Your task to perform on an android device: see sites visited before in the chrome app Image 0: 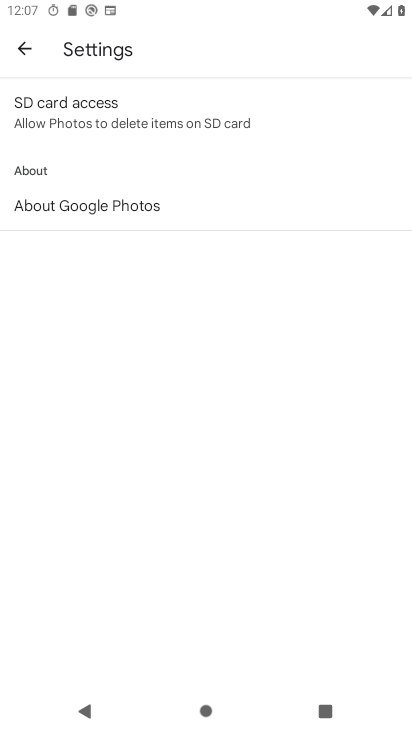
Step 0: press home button
Your task to perform on an android device: see sites visited before in the chrome app Image 1: 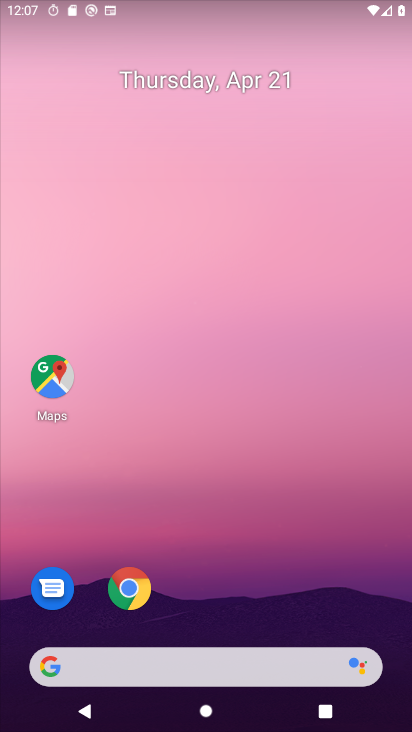
Step 1: click (125, 582)
Your task to perform on an android device: see sites visited before in the chrome app Image 2: 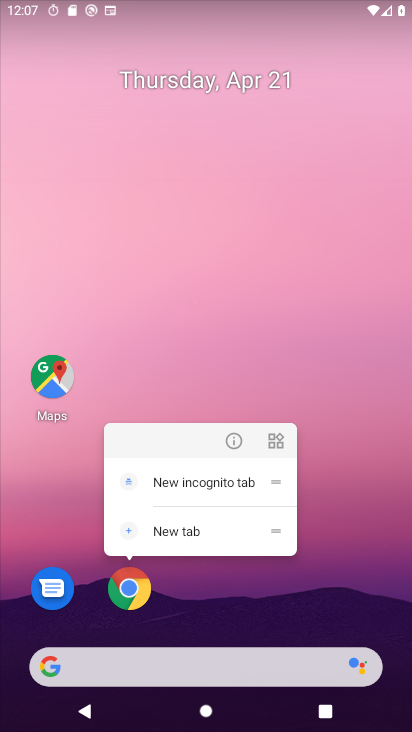
Step 2: click (234, 590)
Your task to perform on an android device: see sites visited before in the chrome app Image 3: 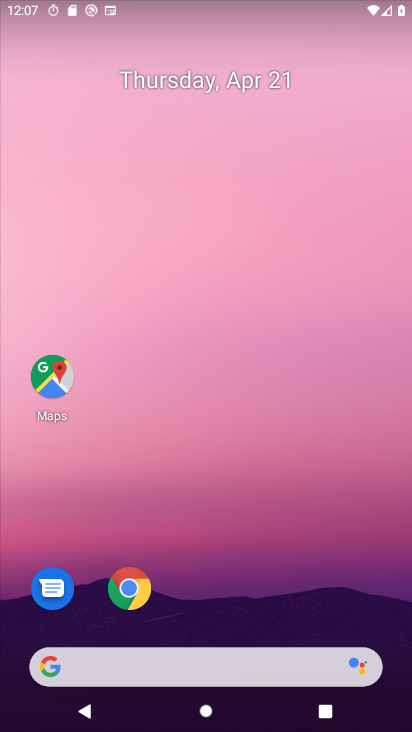
Step 3: click (123, 582)
Your task to perform on an android device: see sites visited before in the chrome app Image 4: 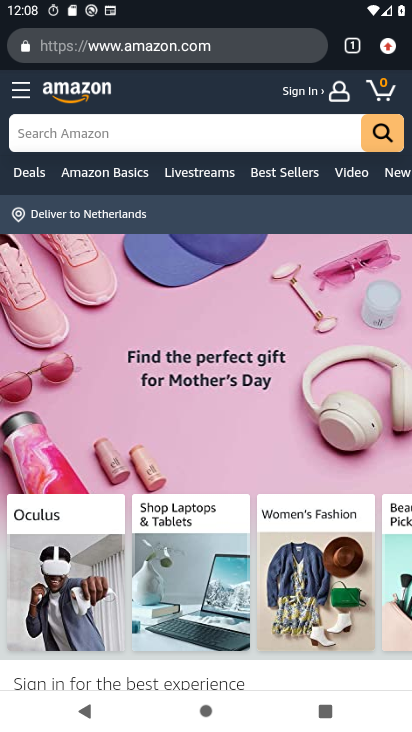
Step 4: click (390, 42)
Your task to perform on an android device: see sites visited before in the chrome app Image 5: 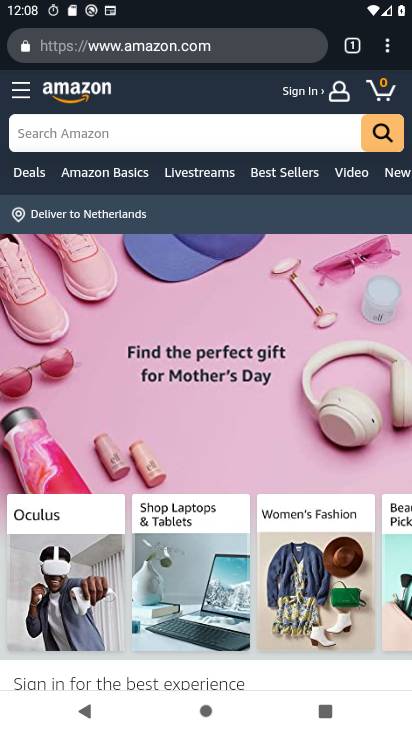
Step 5: click (384, 42)
Your task to perform on an android device: see sites visited before in the chrome app Image 6: 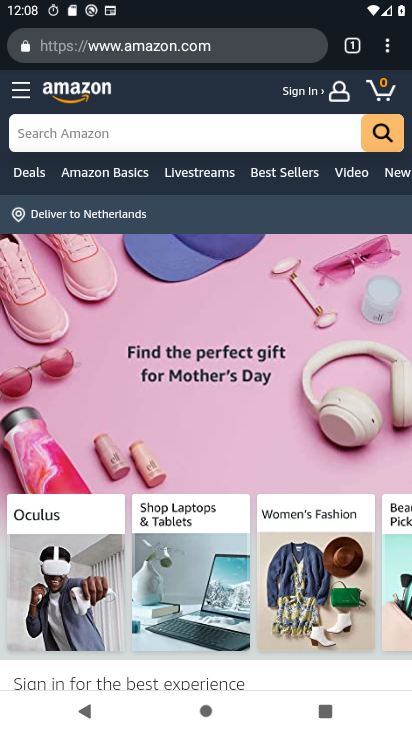
Step 6: click (389, 45)
Your task to perform on an android device: see sites visited before in the chrome app Image 7: 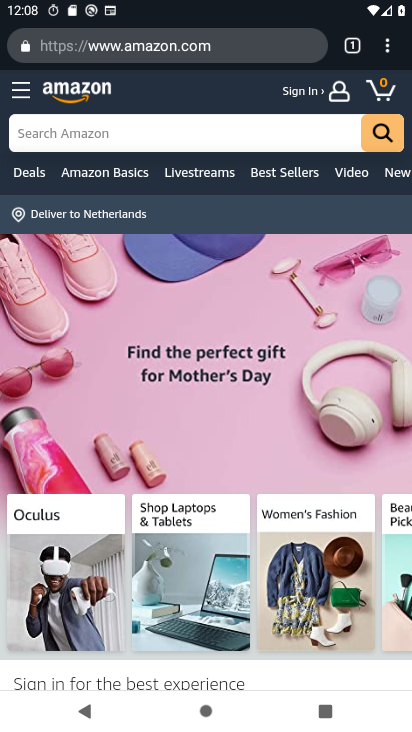
Step 7: click (386, 45)
Your task to perform on an android device: see sites visited before in the chrome app Image 8: 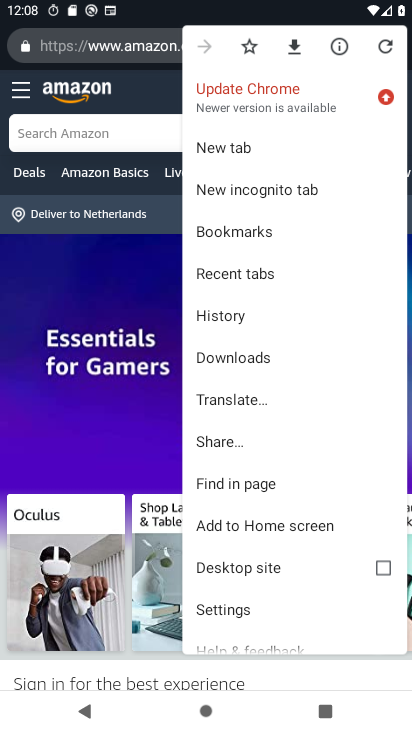
Step 8: click (247, 313)
Your task to perform on an android device: see sites visited before in the chrome app Image 9: 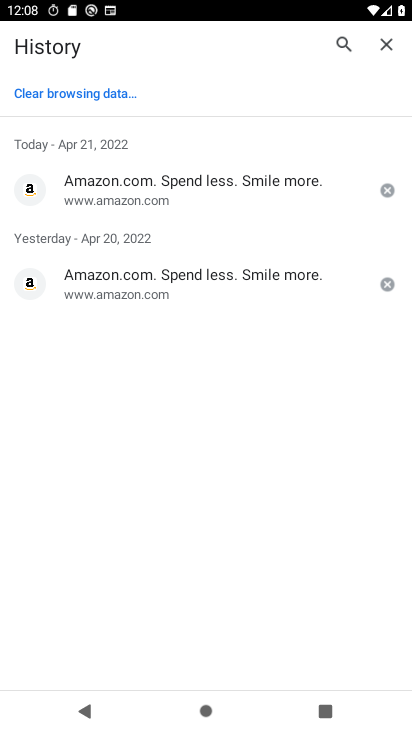
Step 9: task complete